Your task to perform on an android device: Open Chrome and go to settings Image 0: 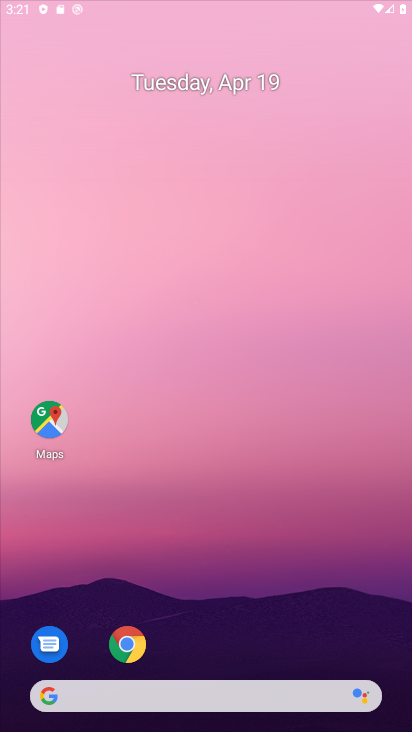
Step 0: drag from (232, 664) to (329, 48)
Your task to perform on an android device: Open Chrome and go to settings Image 1: 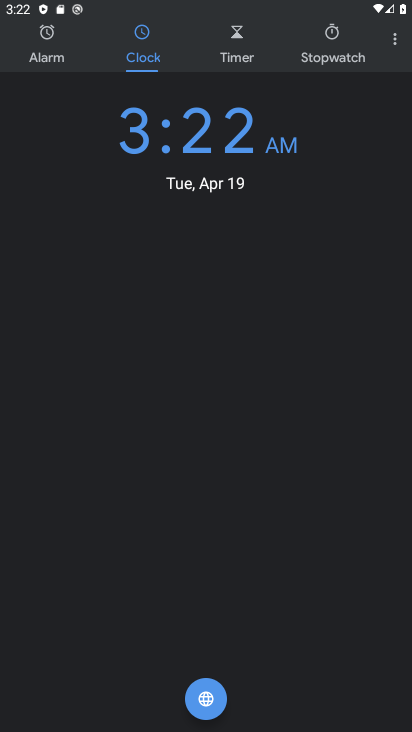
Step 1: press back button
Your task to perform on an android device: Open Chrome and go to settings Image 2: 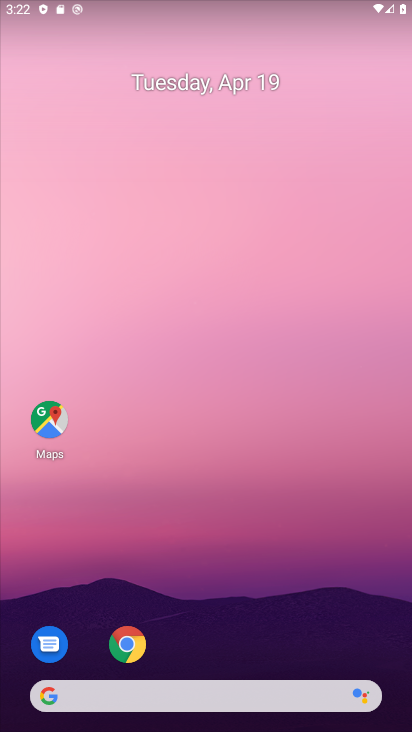
Step 2: click (117, 644)
Your task to perform on an android device: Open Chrome and go to settings Image 3: 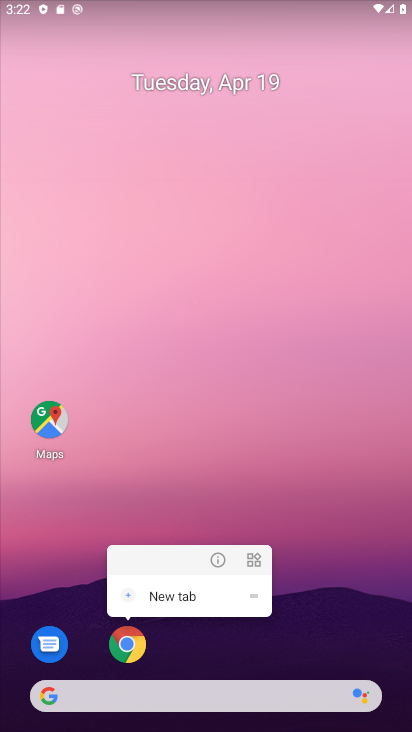
Step 3: click (131, 647)
Your task to perform on an android device: Open Chrome and go to settings Image 4: 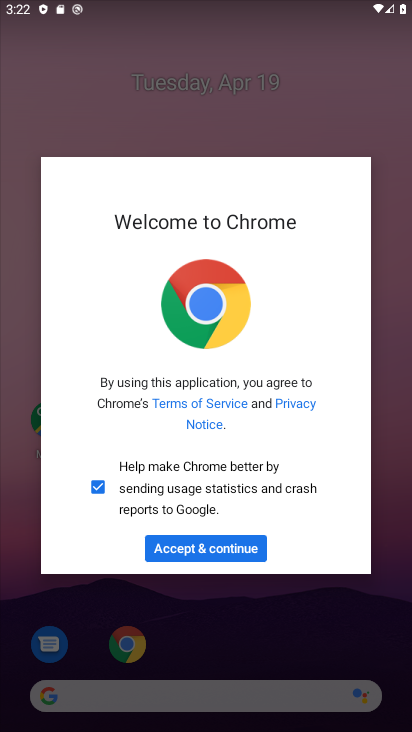
Step 4: click (240, 550)
Your task to perform on an android device: Open Chrome and go to settings Image 5: 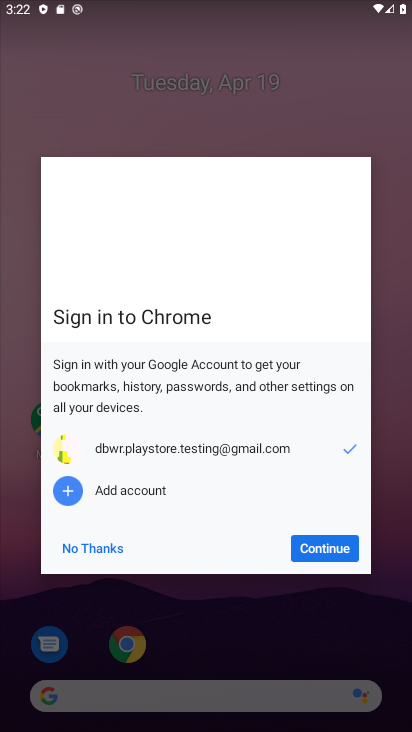
Step 5: click (343, 553)
Your task to perform on an android device: Open Chrome and go to settings Image 6: 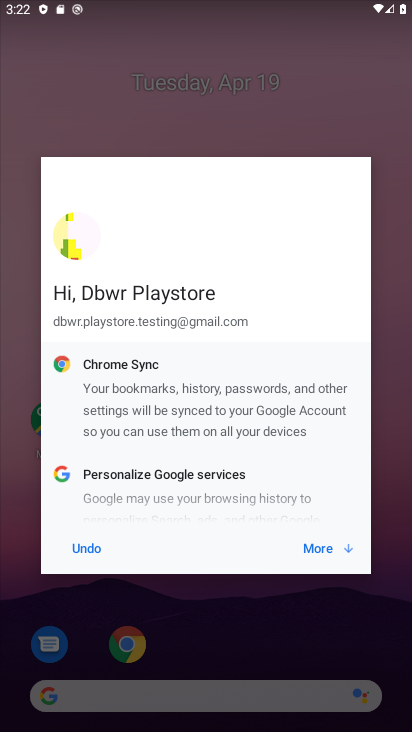
Step 6: click (343, 553)
Your task to perform on an android device: Open Chrome and go to settings Image 7: 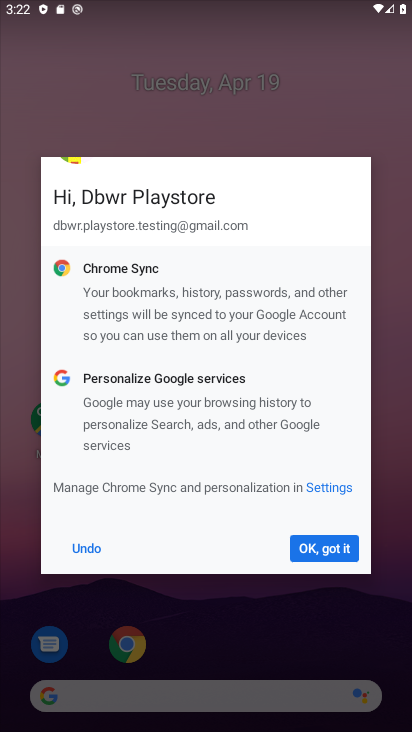
Step 7: click (343, 553)
Your task to perform on an android device: Open Chrome and go to settings Image 8: 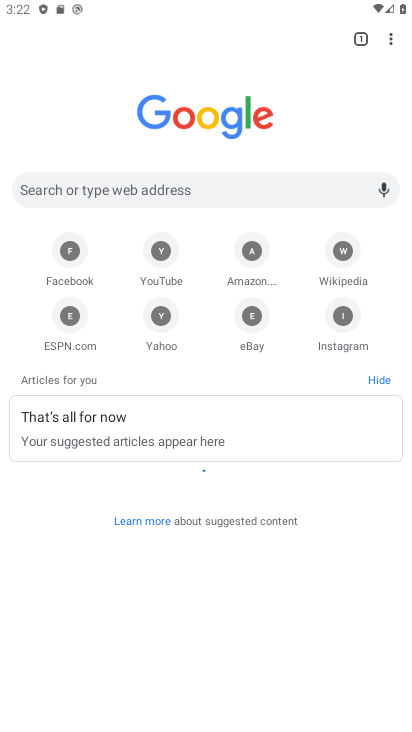
Step 8: click (396, 39)
Your task to perform on an android device: Open Chrome and go to settings Image 9: 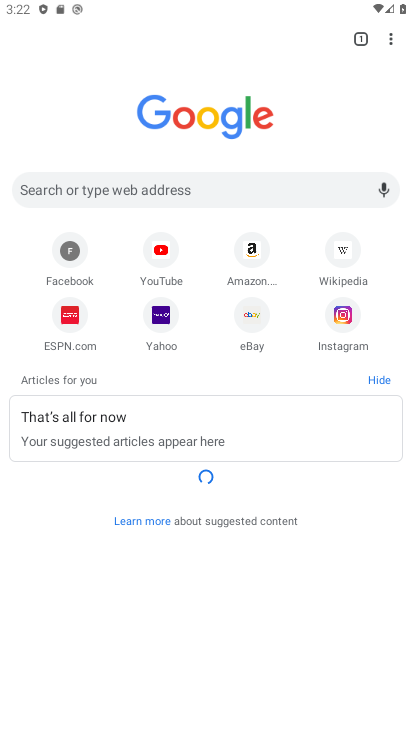
Step 9: task complete